Your task to perform on an android device: turn off data saver in the chrome app Image 0: 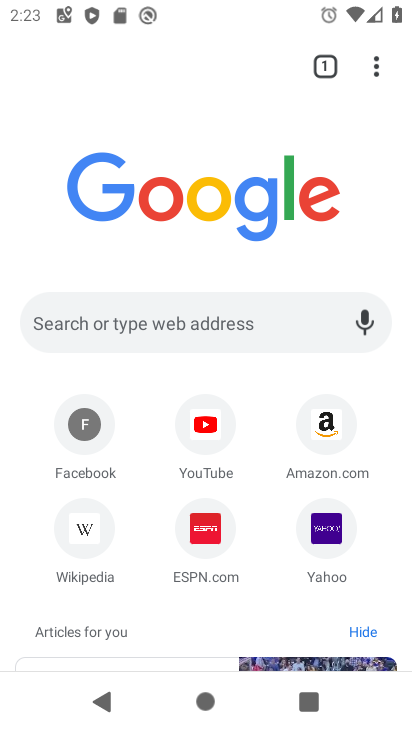
Step 0: press home button
Your task to perform on an android device: turn off data saver in the chrome app Image 1: 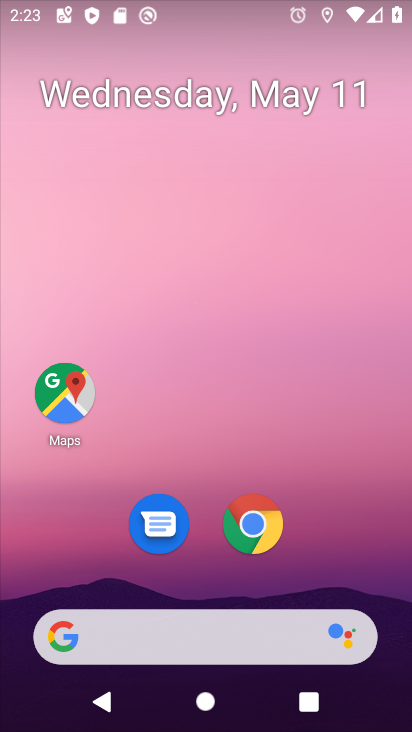
Step 1: click (254, 507)
Your task to perform on an android device: turn off data saver in the chrome app Image 2: 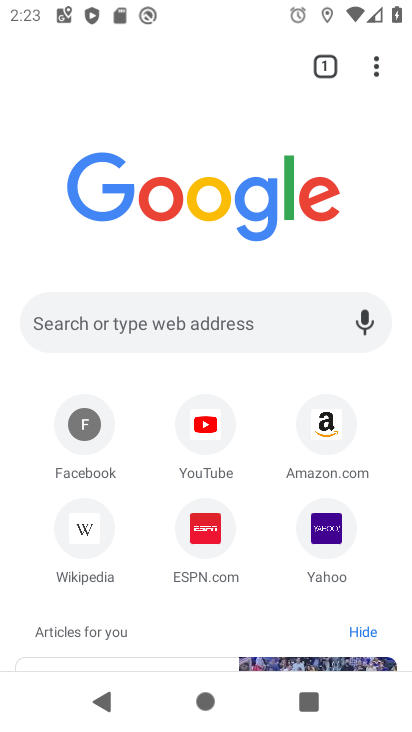
Step 2: click (375, 63)
Your task to perform on an android device: turn off data saver in the chrome app Image 3: 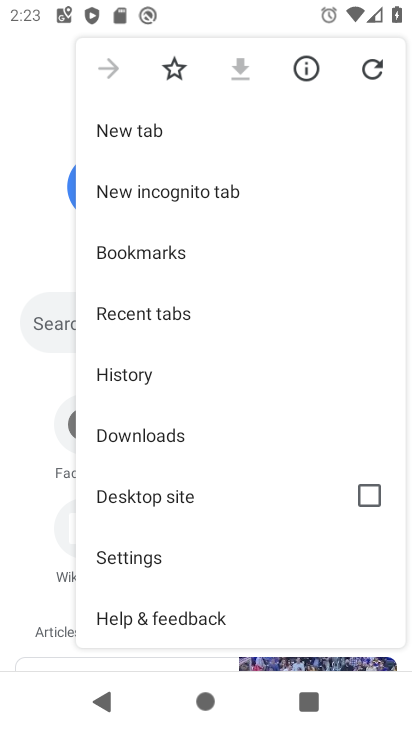
Step 3: click (131, 559)
Your task to perform on an android device: turn off data saver in the chrome app Image 4: 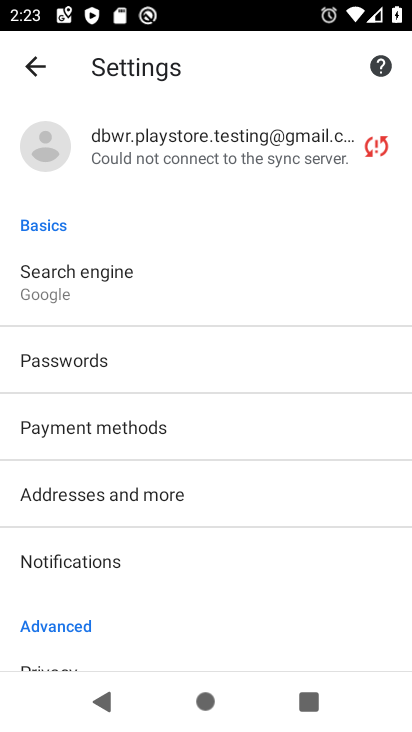
Step 4: drag from (213, 606) to (225, 208)
Your task to perform on an android device: turn off data saver in the chrome app Image 5: 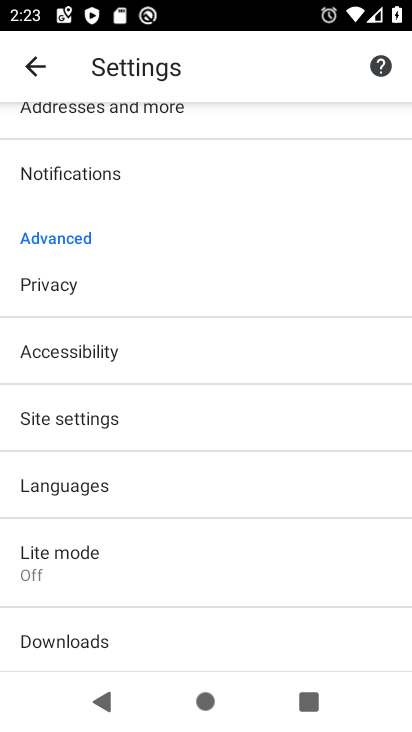
Step 5: click (185, 571)
Your task to perform on an android device: turn off data saver in the chrome app Image 6: 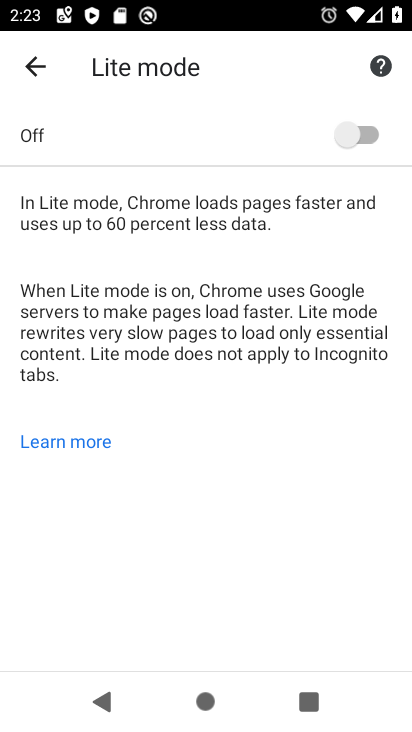
Step 6: task complete